Your task to perform on an android device: Open wifi settings Image 0: 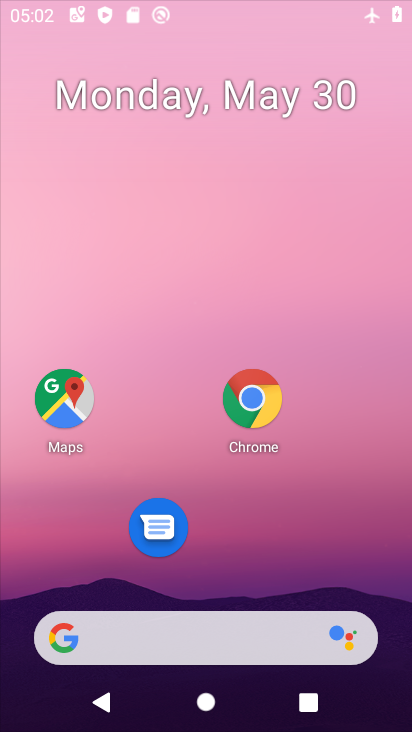
Step 0: drag from (235, 719) to (260, 131)
Your task to perform on an android device: Open wifi settings Image 1: 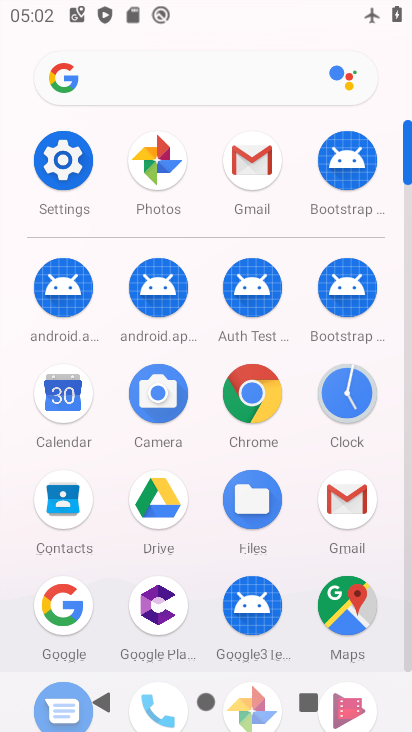
Step 1: click (64, 167)
Your task to perform on an android device: Open wifi settings Image 2: 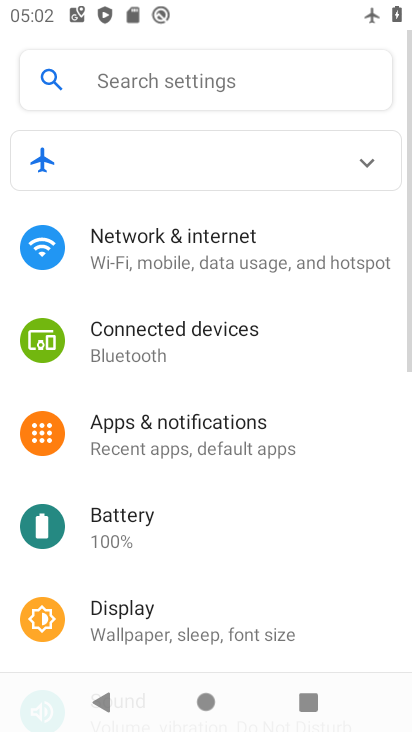
Step 2: click (160, 243)
Your task to perform on an android device: Open wifi settings Image 3: 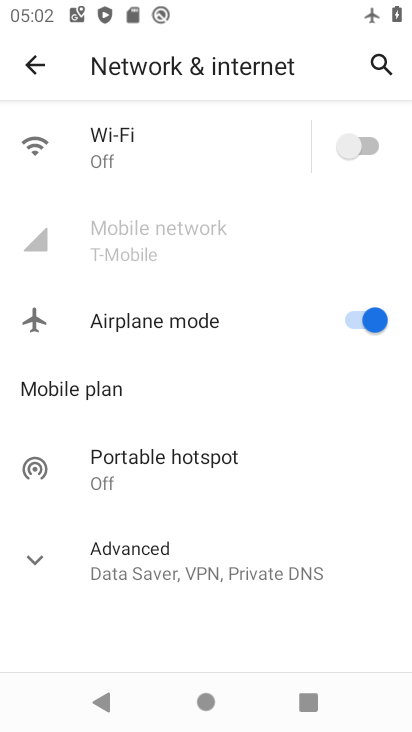
Step 3: click (112, 139)
Your task to perform on an android device: Open wifi settings Image 4: 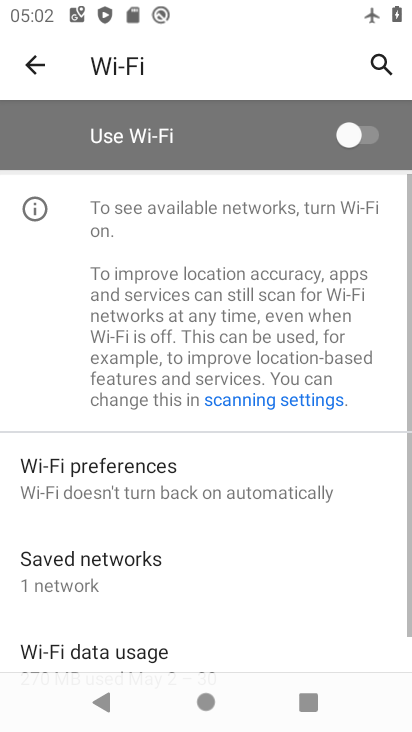
Step 4: task complete